Your task to perform on an android device: Go to wifi settings Image 0: 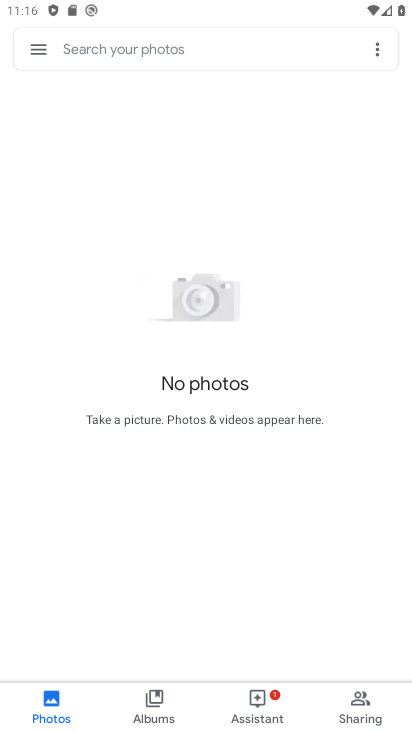
Step 0: press home button
Your task to perform on an android device: Go to wifi settings Image 1: 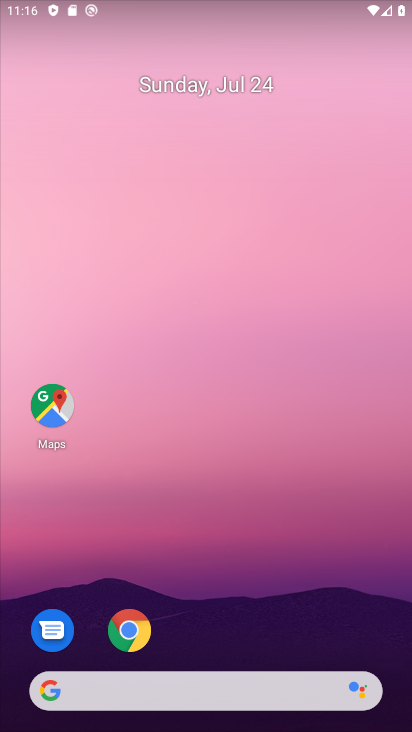
Step 1: drag from (223, 563) to (225, 57)
Your task to perform on an android device: Go to wifi settings Image 2: 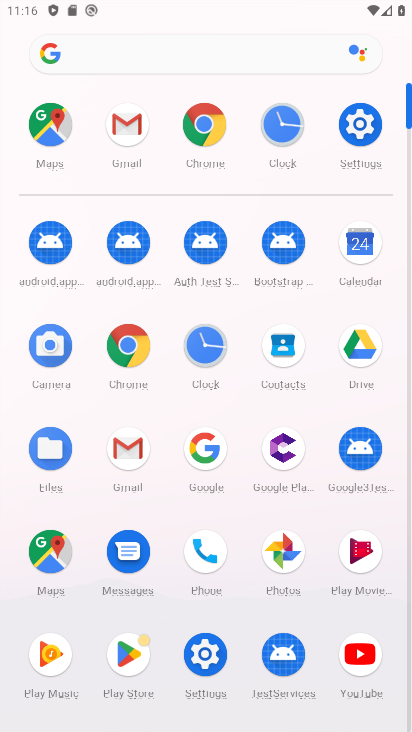
Step 2: click (350, 130)
Your task to perform on an android device: Go to wifi settings Image 3: 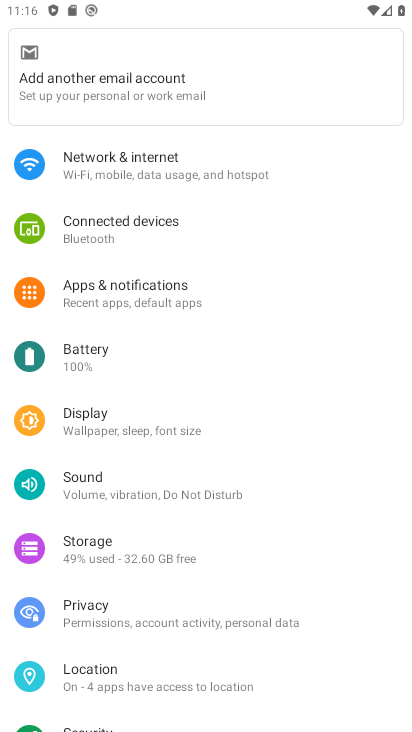
Step 3: click (151, 159)
Your task to perform on an android device: Go to wifi settings Image 4: 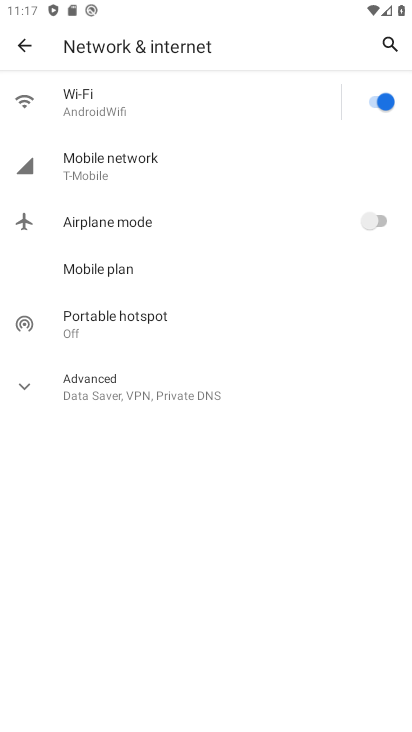
Step 4: task complete